Your task to perform on an android device: Open Google Maps Image 0: 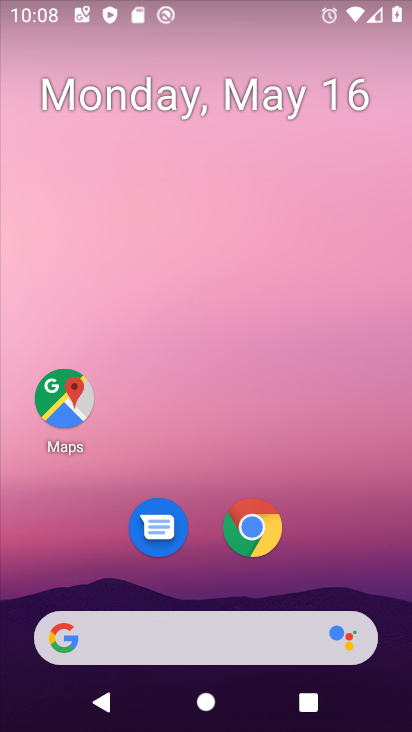
Step 0: click (60, 396)
Your task to perform on an android device: Open Google Maps Image 1: 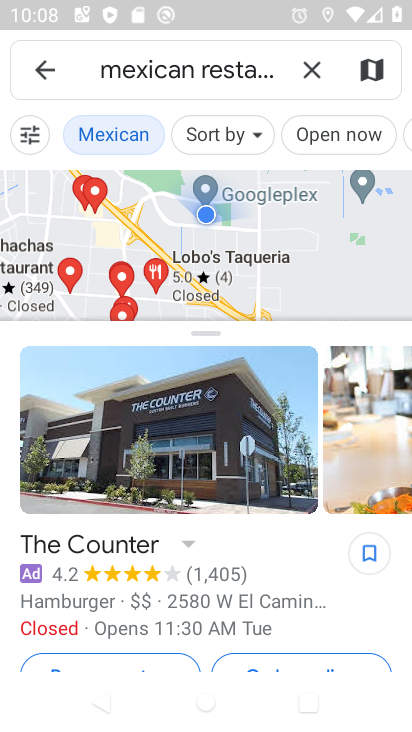
Step 1: task complete